Your task to perform on an android device: Open the Play Movies app and select the watchlist tab. Image 0: 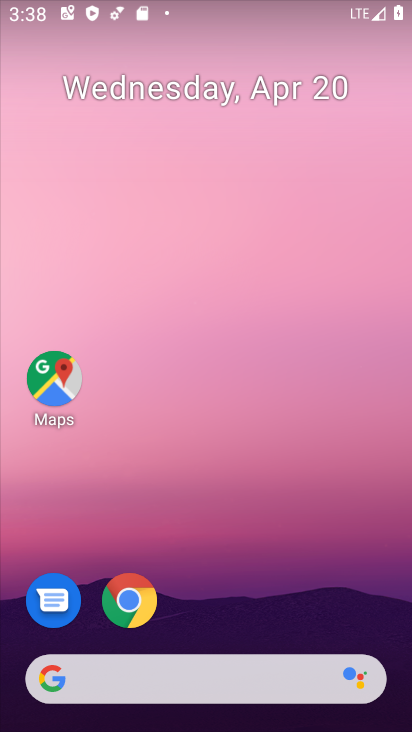
Step 0: drag from (255, 622) to (224, 185)
Your task to perform on an android device: Open the Play Movies app and select the watchlist tab. Image 1: 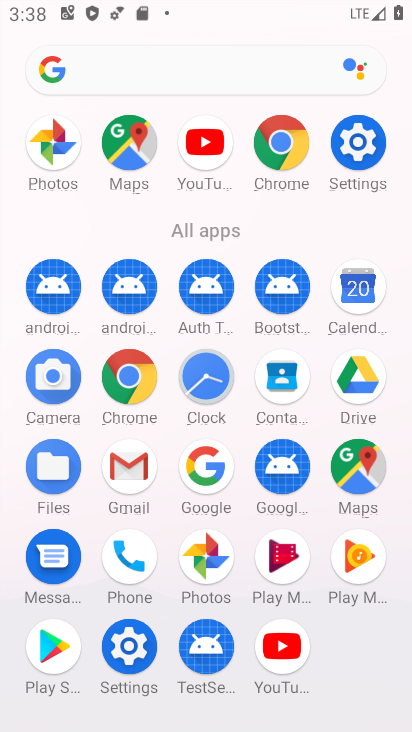
Step 1: click (281, 555)
Your task to perform on an android device: Open the Play Movies app and select the watchlist tab. Image 2: 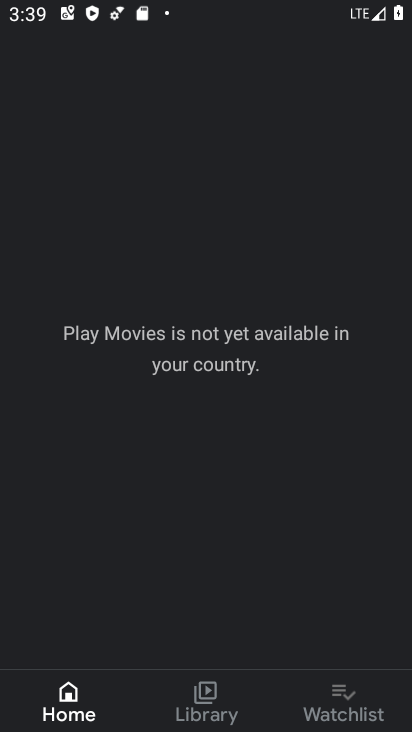
Step 2: click (348, 690)
Your task to perform on an android device: Open the Play Movies app and select the watchlist tab. Image 3: 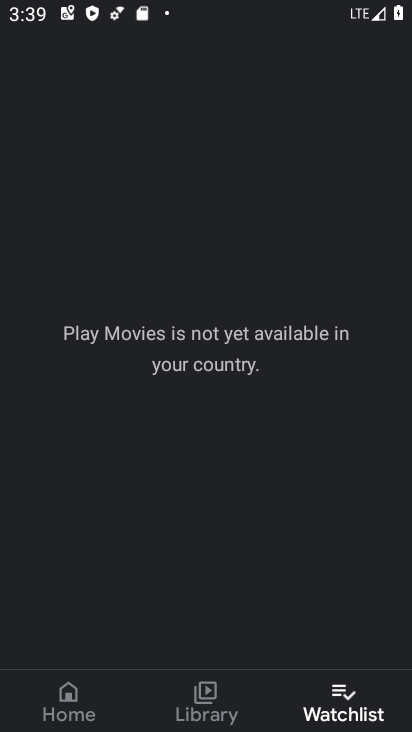
Step 3: task complete